Your task to perform on an android device: What is the news today? Image 0: 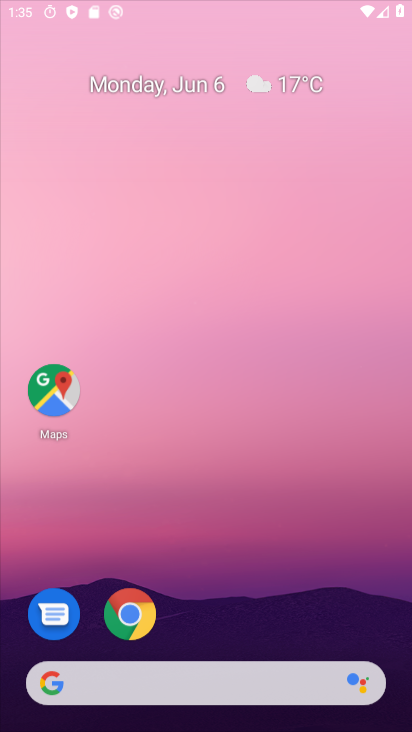
Step 0: click (226, 103)
Your task to perform on an android device: What is the news today? Image 1: 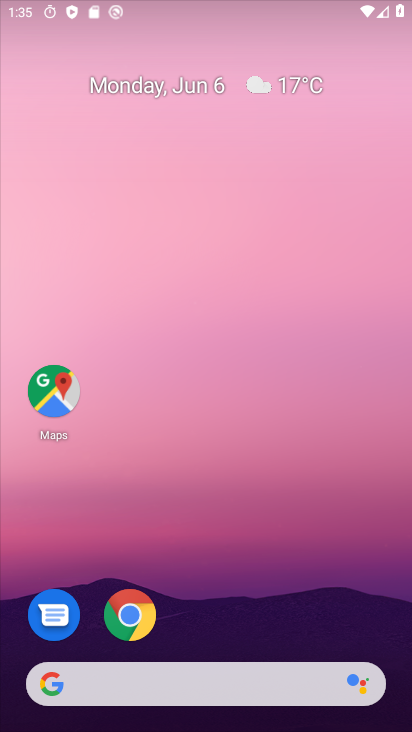
Step 1: drag from (199, 602) to (217, 0)
Your task to perform on an android device: What is the news today? Image 2: 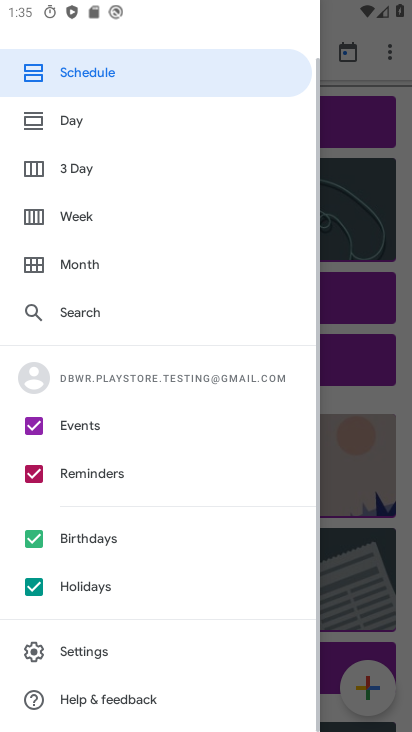
Step 2: press home button
Your task to perform on an android device: What is the news today? Image 3: 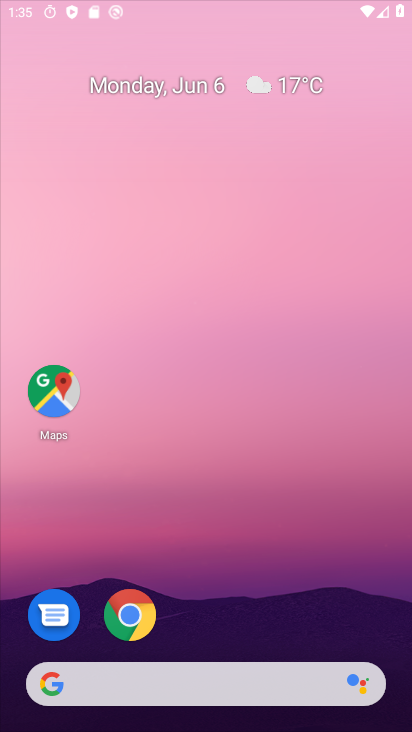
Step 3: drag from (159, 602) to (158, 14)
Your task to perform on an android device: What is the news today? Image 4: 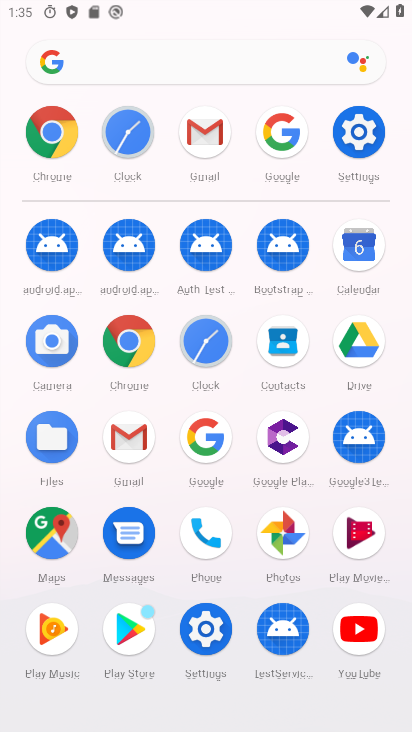
Step 4: click (127, 44)
Your task to perform on an android device: What is the news today? Image 5: 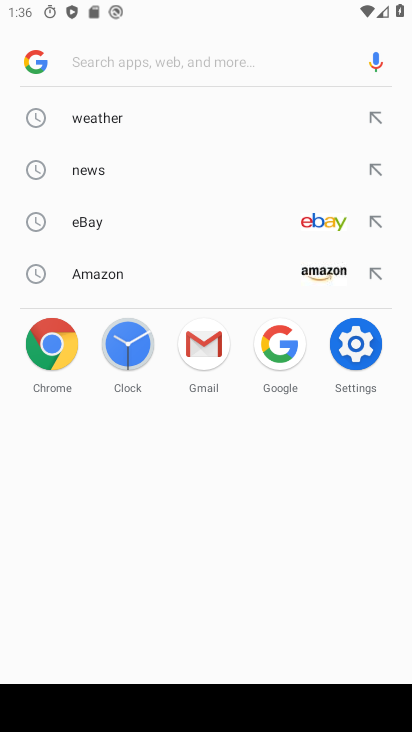
Step 5: click (107, 66)
Your task to perform on an android device: What is the news today? Image 6: 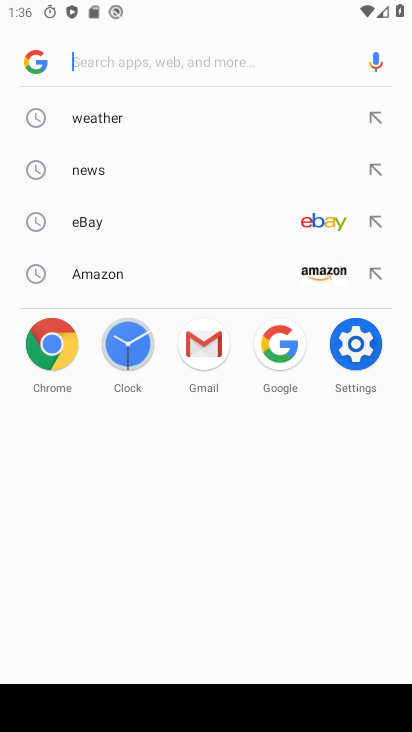
Step 6: type "news today?"
Your task to perform on an android device: What is the news today? Image 7: 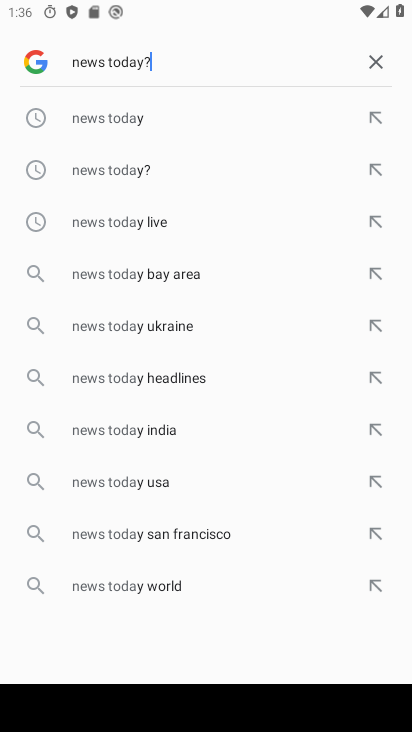
Step 7: type ""
Your task to perform on an android device: What is the news today? Image 8: 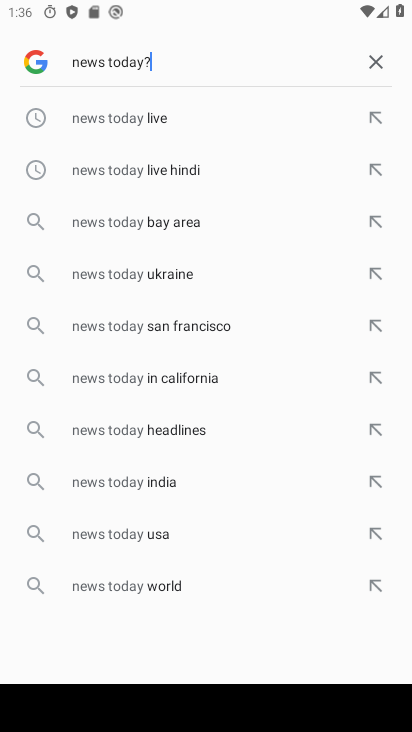
Step 8: click (63, 121)
Your task to perform on an android device: What is the news today? Image 9: 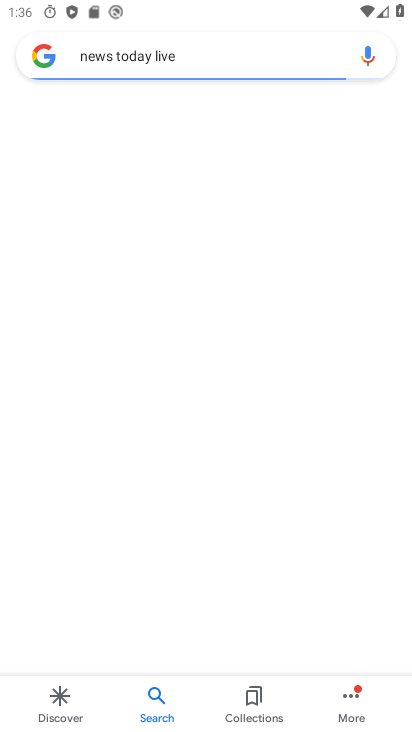
Step 9: task complete